Your task to perform on an android device: turn off sleep mode Image 0: 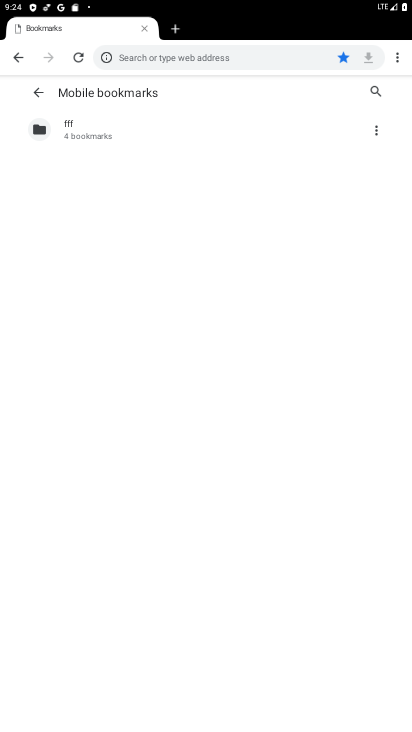
Step 0: drag from (295, 649) to (240, 99)
Your task to perform on an android device: turn off sleep mode Image 1: 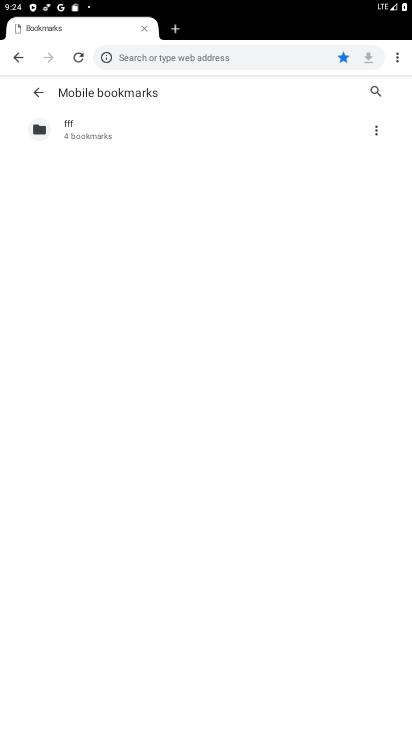
Step 1: press home button
Your task to perform on an android device: turn off sleep mode Image 2: 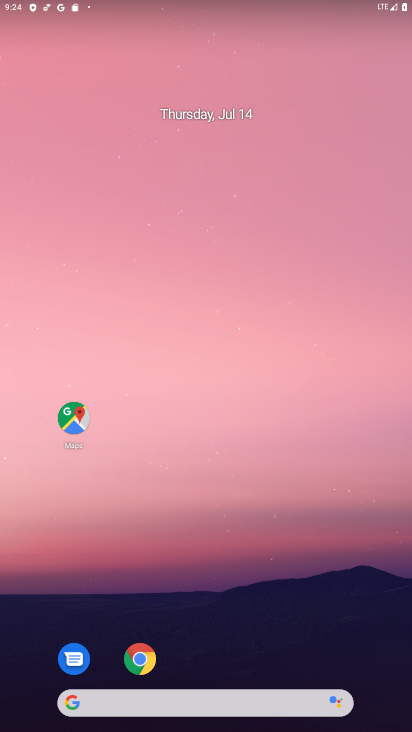
Step 2: drag from (374, 10) to (397, 605)
Your task to perform on an android device: turn off sleep mode Image 3: 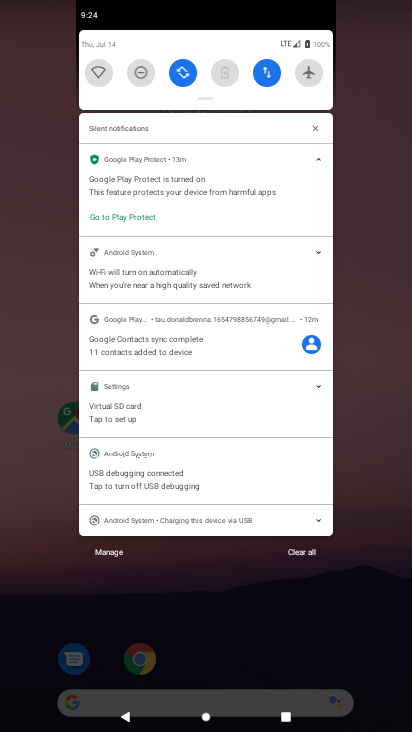
Step 3: drag from (198, 93) to (176, 500)
Your task to perform on an android device: turn off sleep mode Image 4: 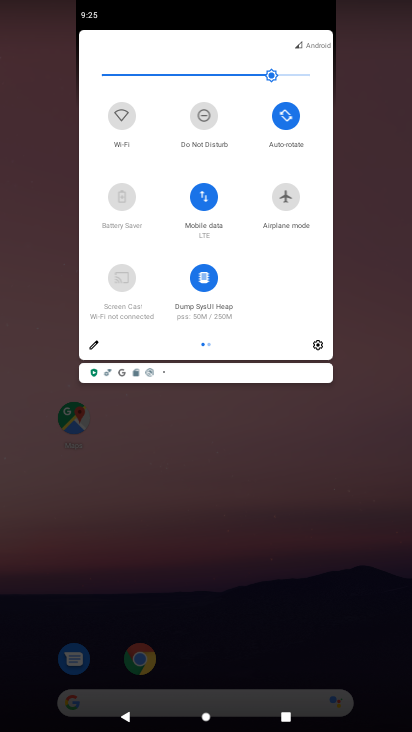
Step 4: click (91, 346)
Your task to perform on an android device: turn off sleep mode Image 5: 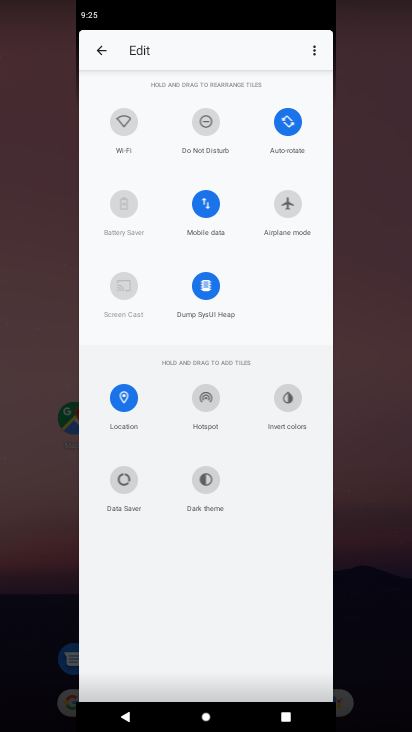
Step 5: task complete